Your task to perform on an android device: Check the news Image 0: 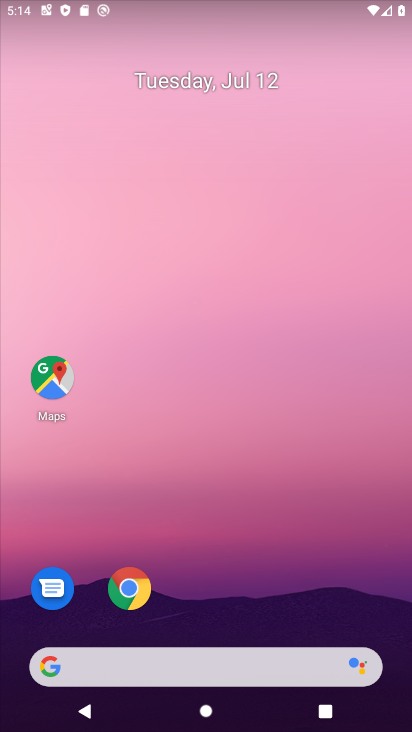
Step 0: drag from (267, 454) to (351, 0)
Your task to perform on an android device: Check the news Image 1: 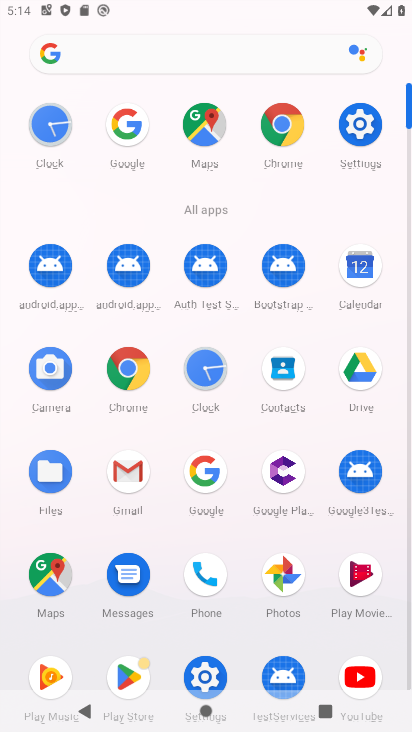
Step 1: click (270, 136)
Your task to perform on an android device: Check the news Image 2: 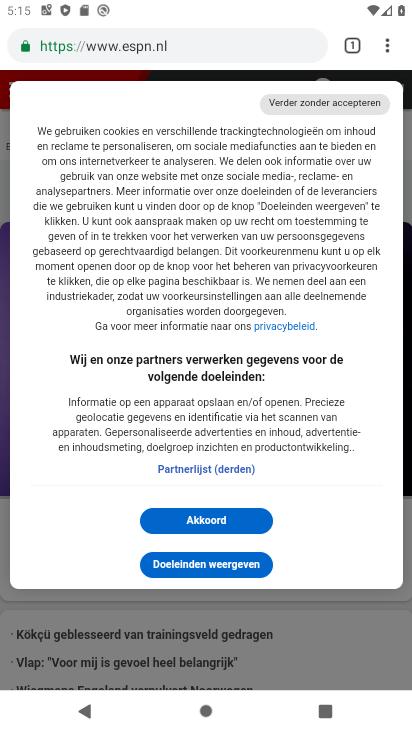
Step 2: task complete